Your task to perform on an android device: Open the web browser Image 0: 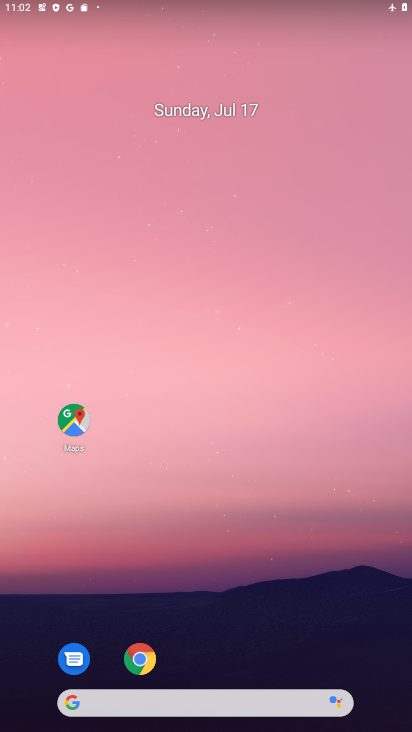
Step 0: click (186, 712)
Your task to perform on an android device: Open the web browser Image 1: 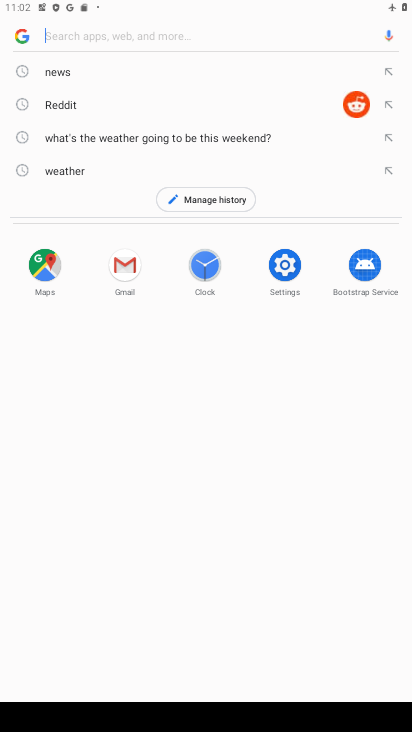
Step 1: task complete